Your task to perform on an android device: turn on sleep mode Image 0: 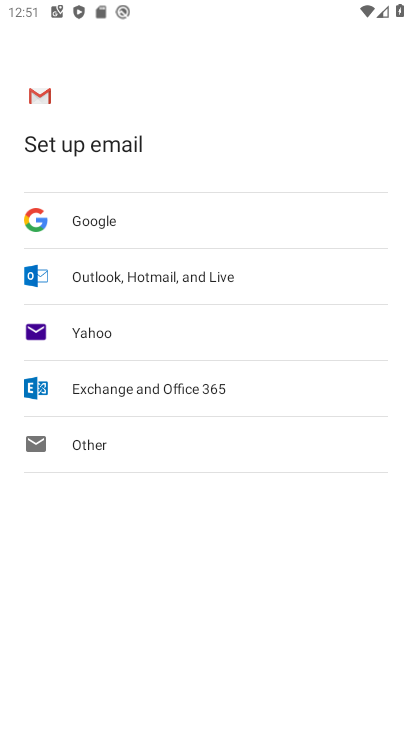
Step 0: press home button
Your task to perform on an android device: turn on sleep mode Image 1: 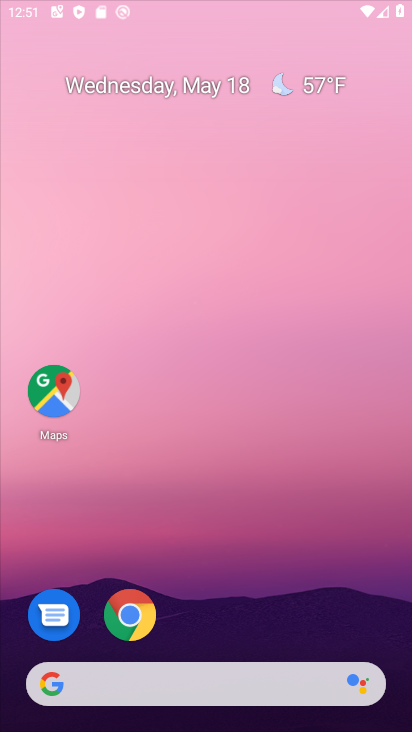
Step 1: drag from (361, 622) to (322, 52)
Your task to perform on an android device: turn on sleep mode Image 2: 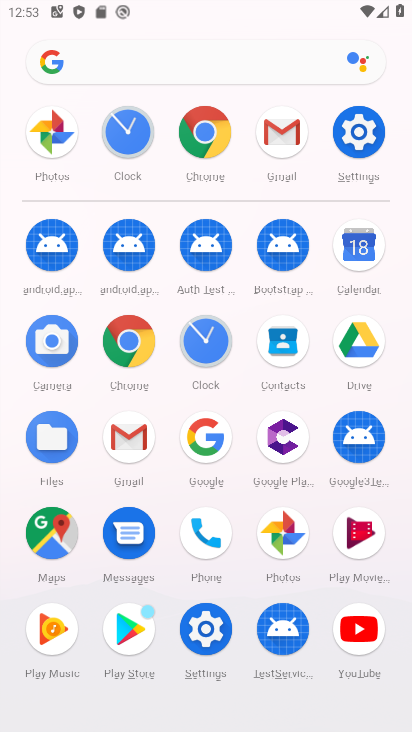
Step 2: click (207, 645)
Your task to perform on an android device: turn on sleep mode Image 3: 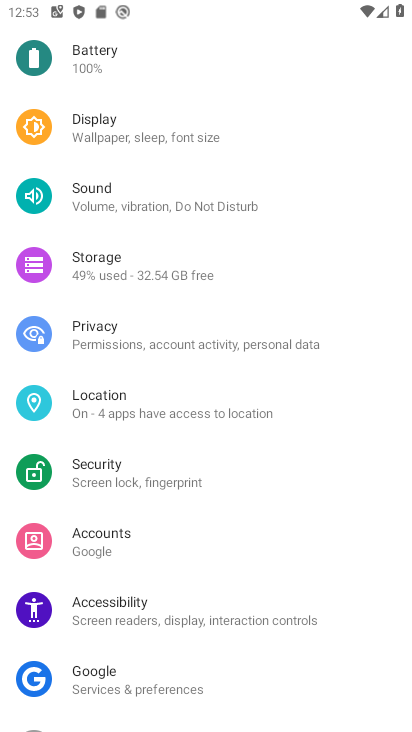
Step 3: task complete